Your task to perform on an android device: turn on location history Image 0: 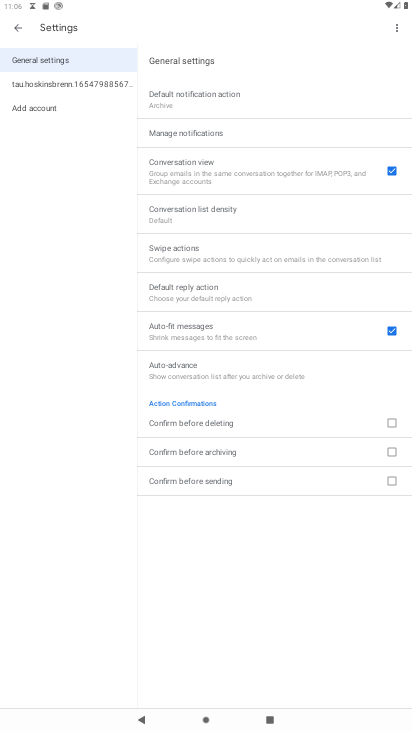
Step 0: press home button
Your task to perform on an android device: turn on location history Image 1: 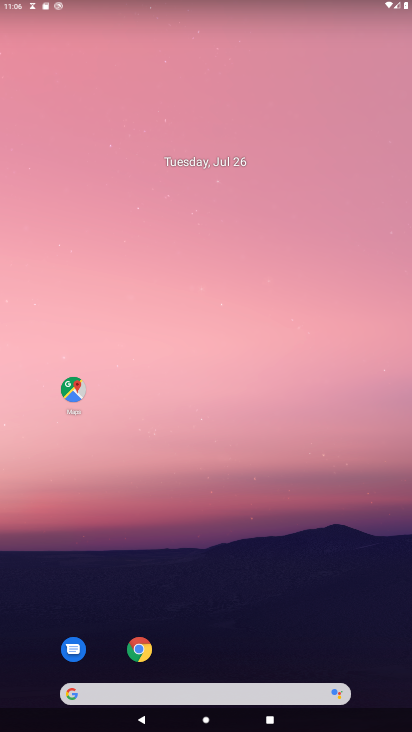
Step 1: drag from (212, 617) to (213, 118)
Your task to perform on an android device: turn on location history Image 2: 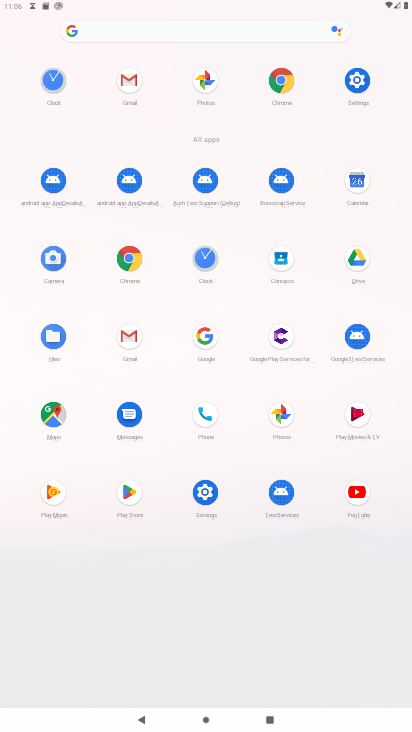
Step 2: click (207, 495)
Your task to perform on an android device: turn on location history Image 3: 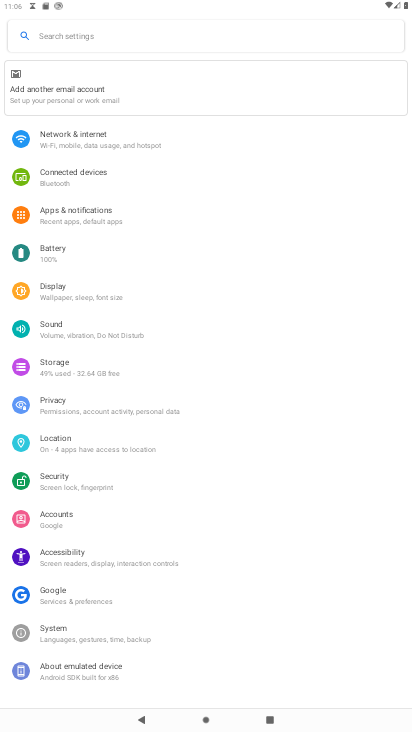
Step 3: click (84, 444)
Your task to perform on an android device: turn on location history Image 4: 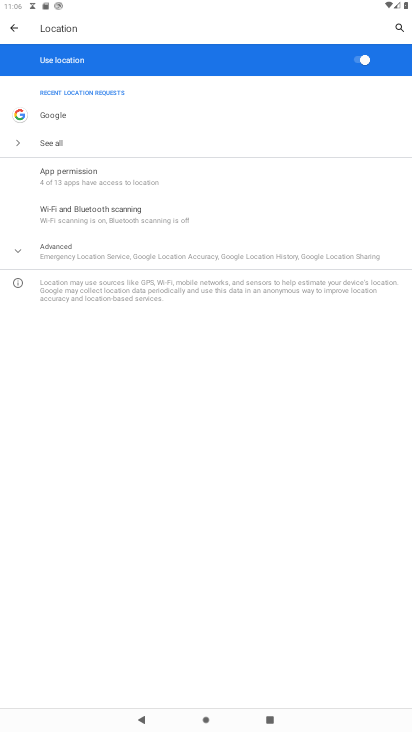
Step 4: click (96, 252)
Your task to perform on an android device: turn on location history Image 5: 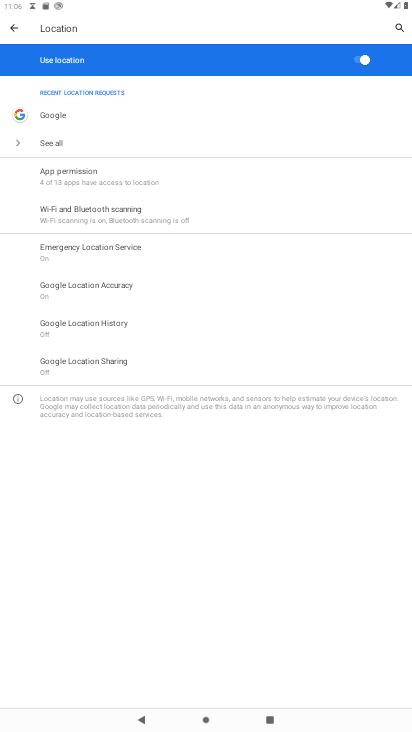
Step 5: click (110, 320)
Your task to perform on an android device: turn on location history Image 6: 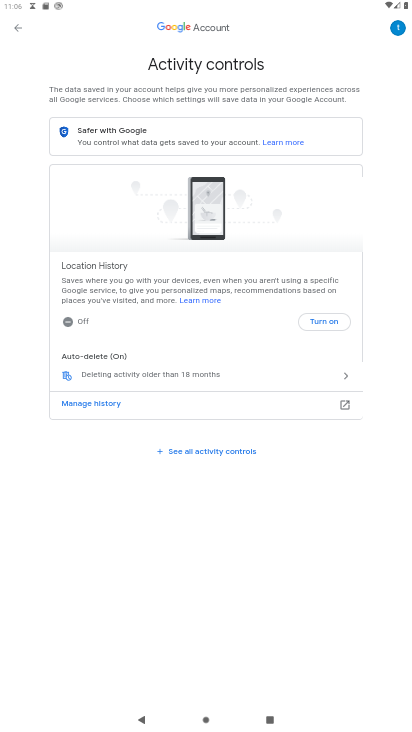
Step 6: click (314, 320)
Your task to perform on an android device: turn on location history Image 7: 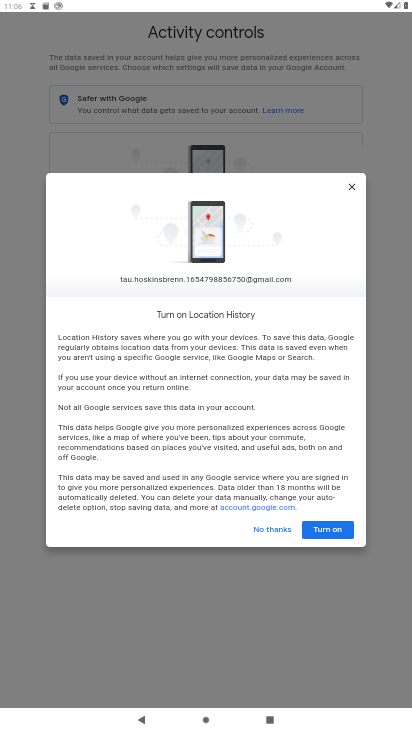
Step 7: click (337, 532)
Your task to perform on an android device: turn on location history Image 8: 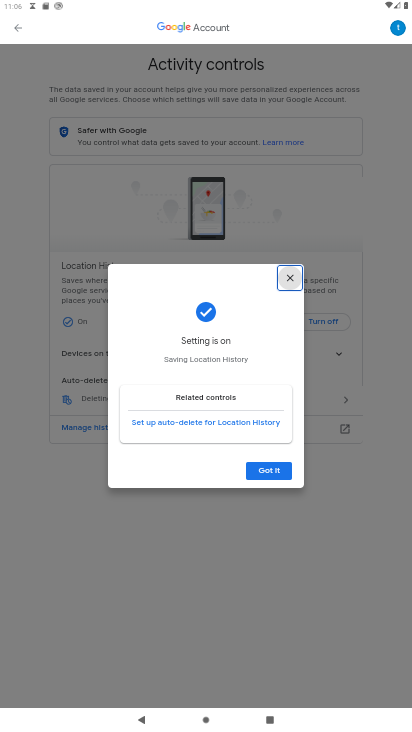
Step 8: click (273, 465)
Your task to perform on an android device: turn on location history Image 9: 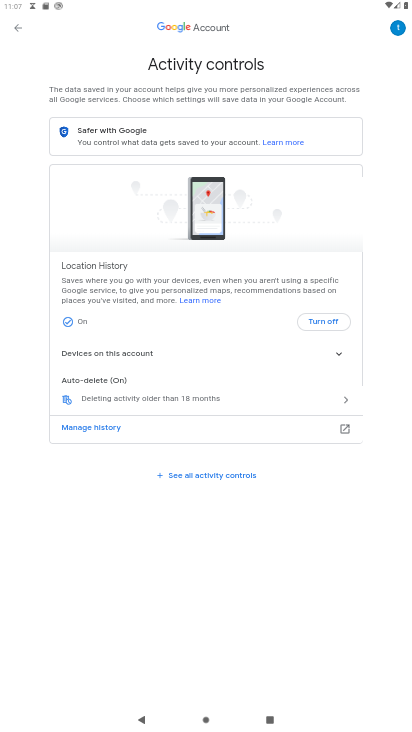
Step 9: task complete